Your task to perform on an android device: What's the weather today? Image 0: 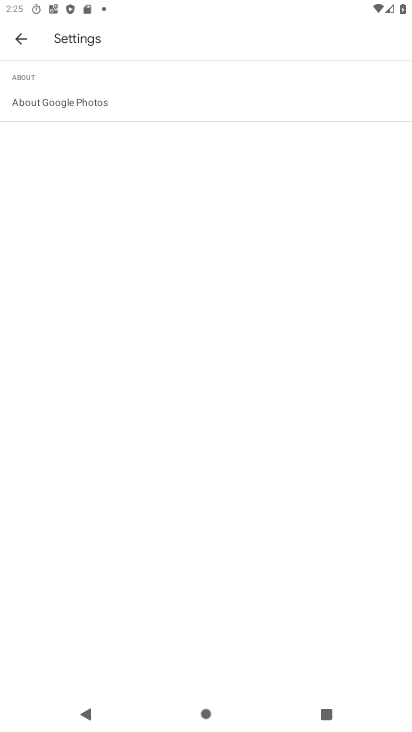
Step 0: press home button
Your task to perform on an android device: What's the weather today? Image 1: 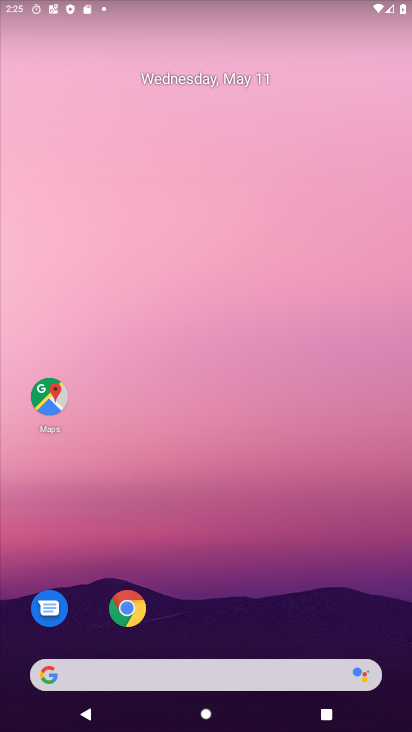
Step 1: click (197, 672)
Your task to perform on an android device: What's the weather today? Image 2: 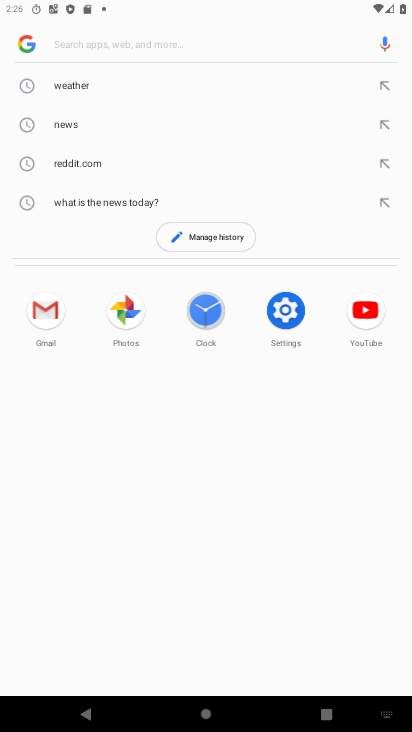
Step 2: click (87, 77)
Your task to perform on an android device: What's the weather today? Image 3: 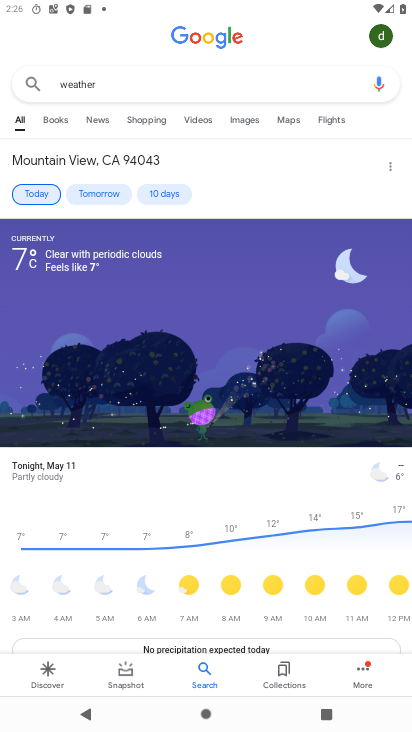
Step 3: drag from (270, 493) to (296, 359)
Your task to perform on an android device: What's the weather today? Image 4: 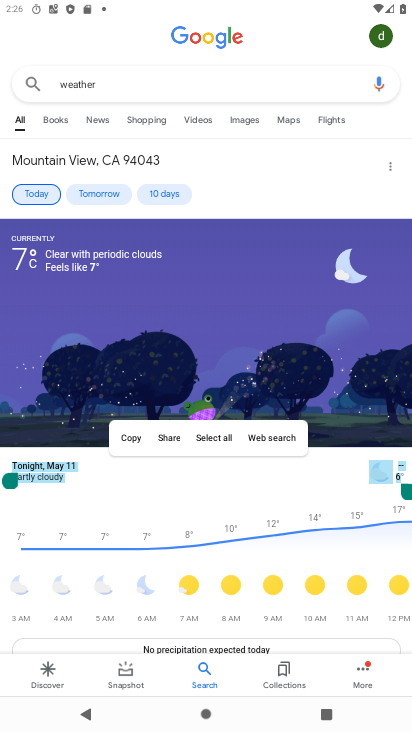
Step 4: drag from (221, 469) to (253, 252)
Your task to perform on an android device: What's the weather today? Image 5: 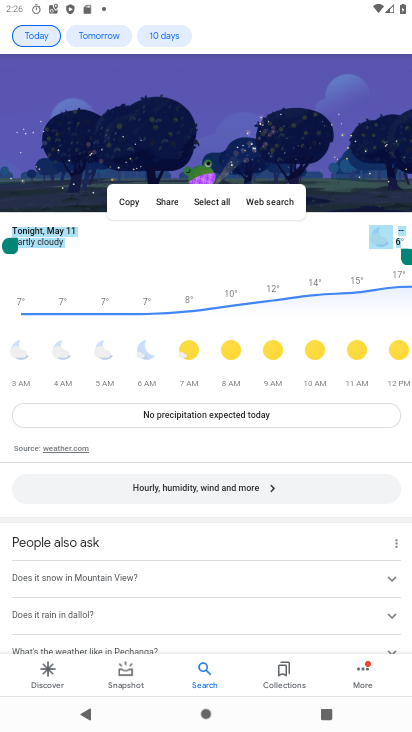
Step 5: click (322, 449)
Your task to perform on an android device: What's the weather today? Image 6: 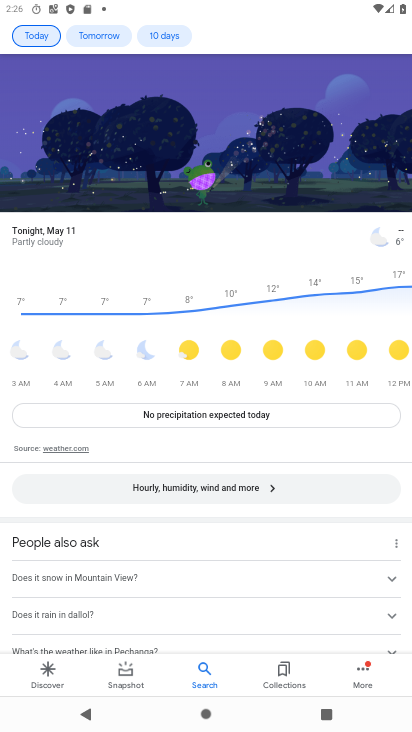
Step 6: task complete